Your task to perform on an android device: Go to sound settings Image 0: 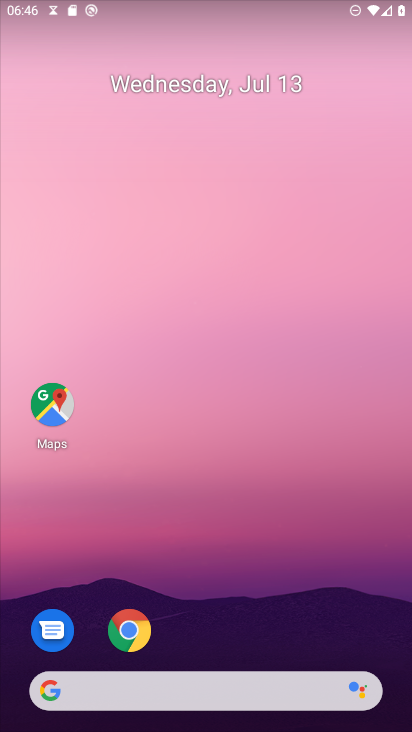
Step 0: drag from (296, 677) to (300, 25)
Your task to perform on an android device: Go to sound settings Image 1: 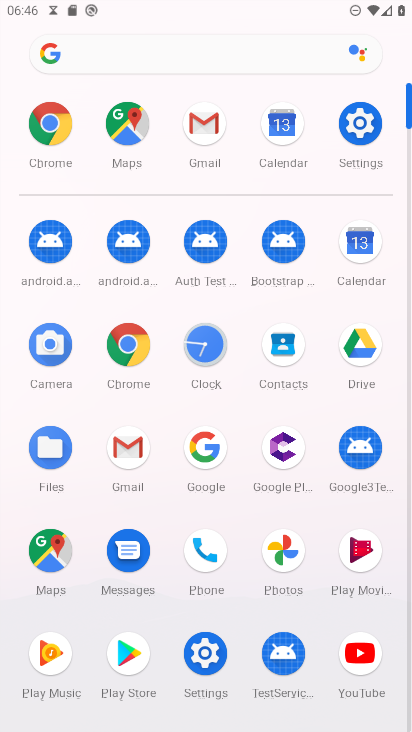
Step 1: click (348, 129)
Your task to perform on an android device: Go to sound settings Image 2: 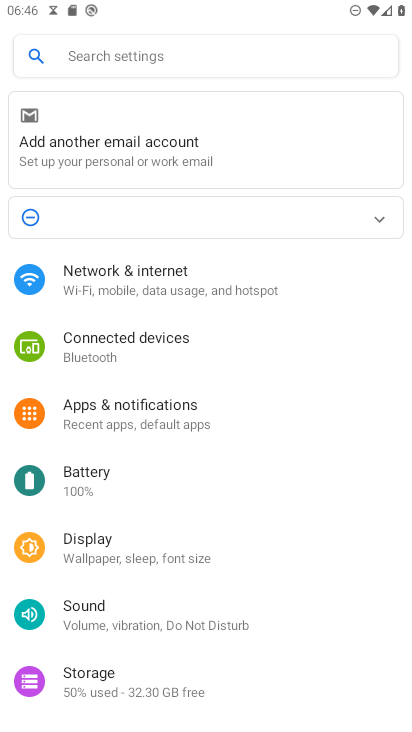
Step 2: click (102, 625)
Your task to perform on an android device: Go to sound settings Image 3: 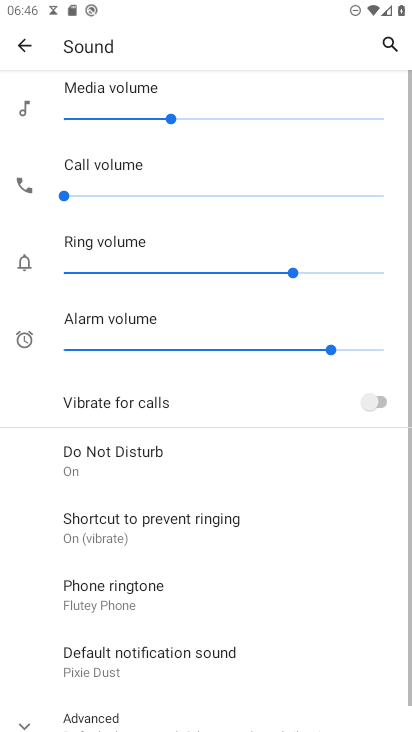
Step 3: task complete